Your task to perform on an android device: Open the Play Movies app and select the watchlist tab. Image 0: 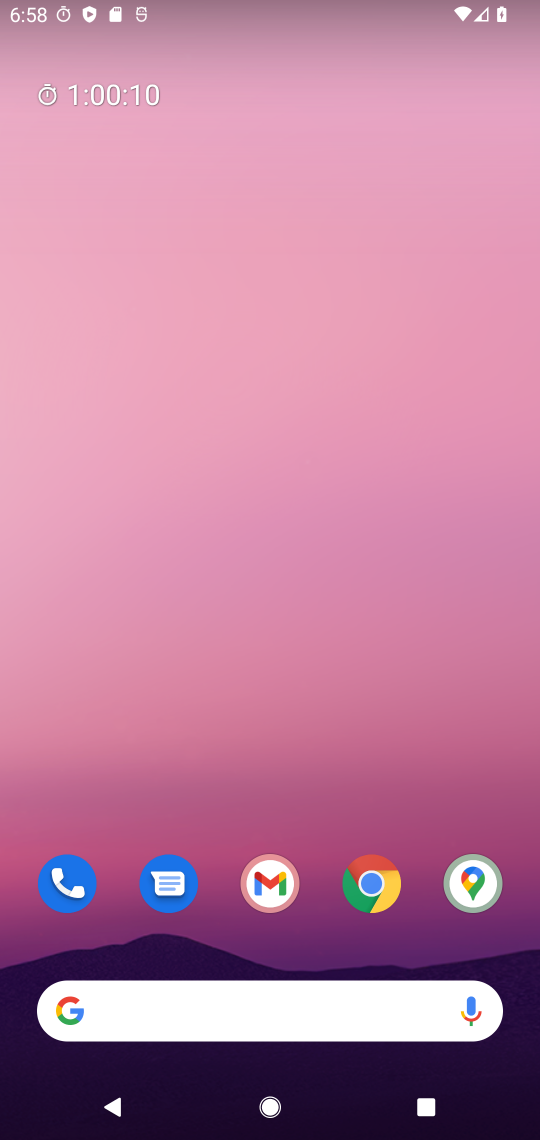
Step 0: drag from (264, 704) to (264, 33)
Your task to perform on an android device: Open the Play Movies app and select the watchlist tab. Image 1: 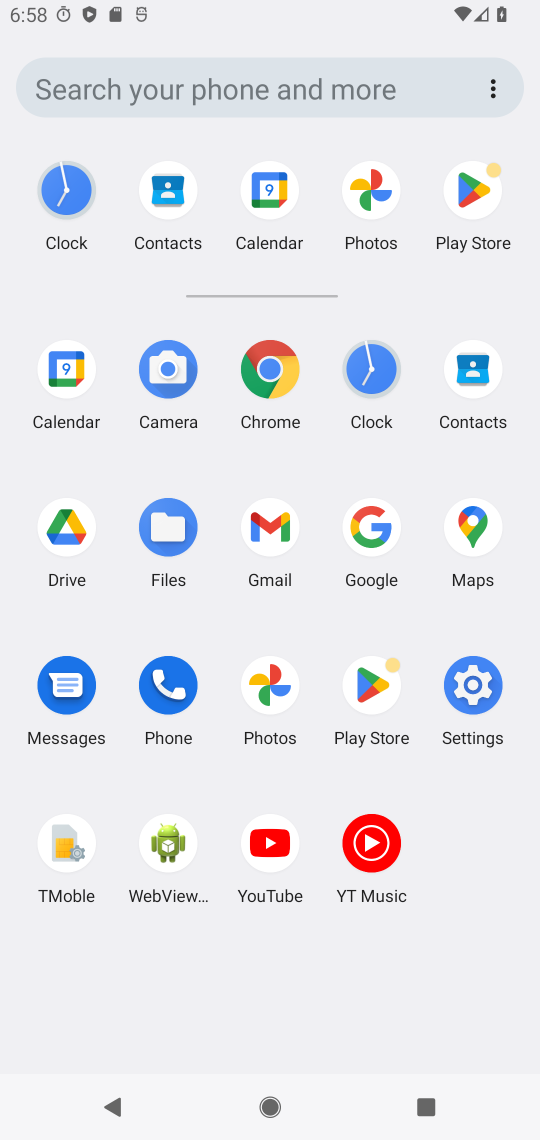
Step 1: task complete